Your task to perform on an android device: find snoozed emails in the gmail app Image 0: 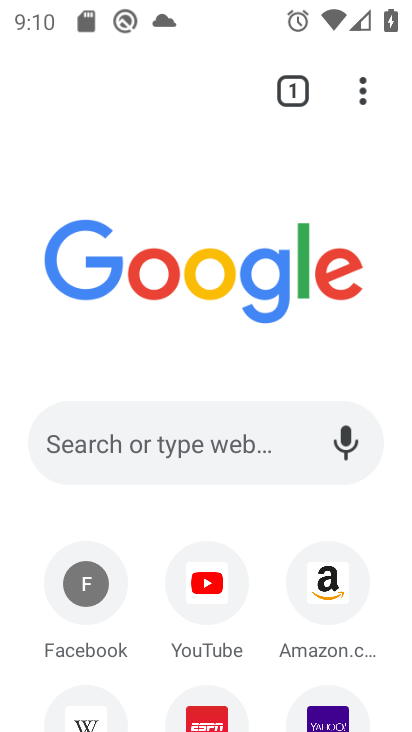
Step 0: press home button
Your task to perform on an android device: find snoozed emails in the gmail app Image 1: 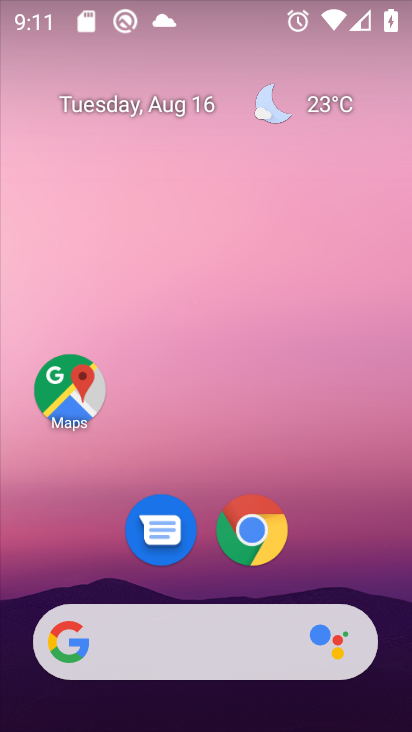
Step 1: drag from (346, 494) to (375, 37)
Your task to perform on an android device: find snoozed emails in the gmail app Image 2: 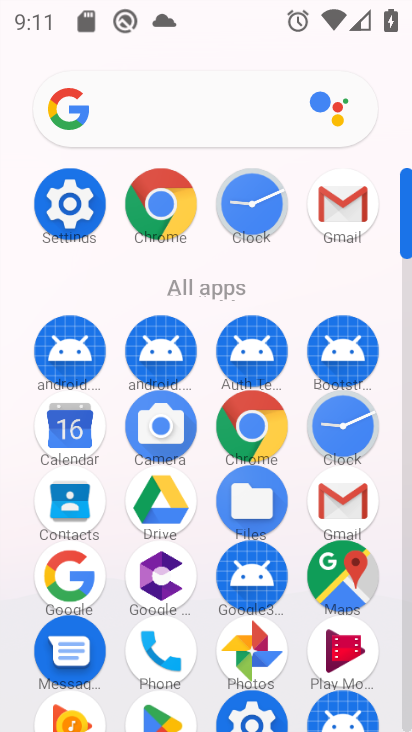
Step 2: click (346, 509)
Your task to perform on an android device: find snoozed emails in the gmail app Image 3: 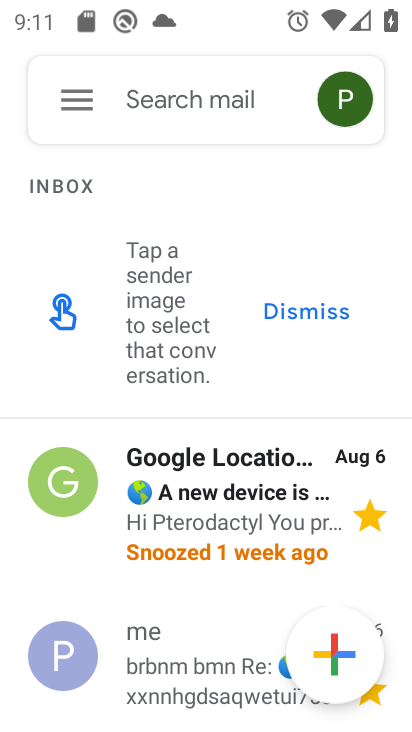
Step 3: click (84, 90)
Your task to perform on an android device: find snoozed emails in the gmail app Image 4: 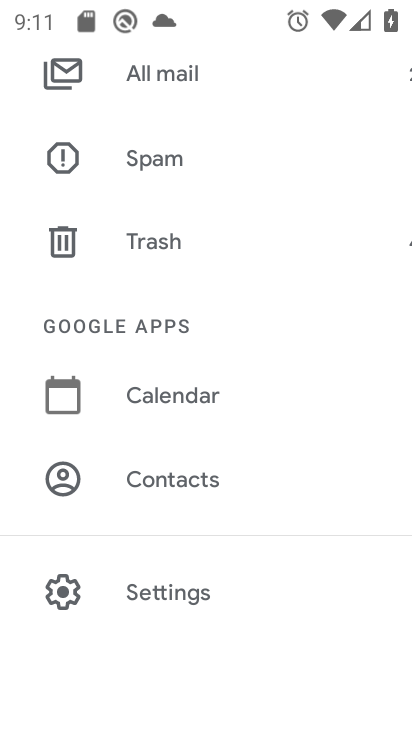
Step 4: drag from (240, 174) to (228, 654)
Your task to perform on an android device: find snoozed emails in the gmail app Image 5: 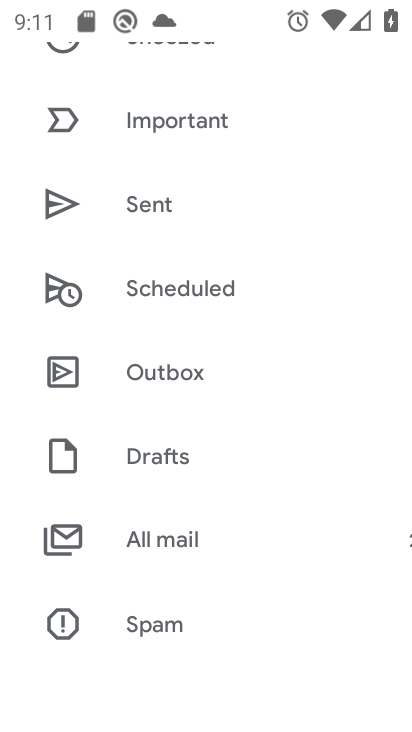
Step 5: drag from (243, 206) to (231, 544)
Your task to perform on an android device: find snoozed emails in the gmail app Image 6: 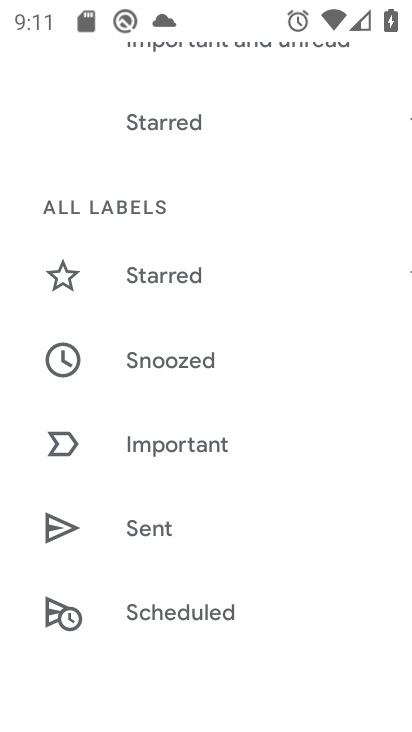
Step 6: click (196, 341)
Your task to perform on an android device: find snoozed emails in the gmail app Image 7: 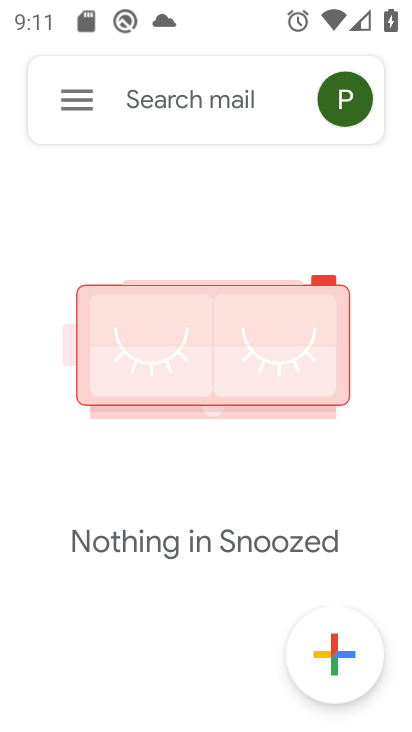
Step 7: task complete